Your task to perform on an android device: Show me the alarms in the clock app Image 0: 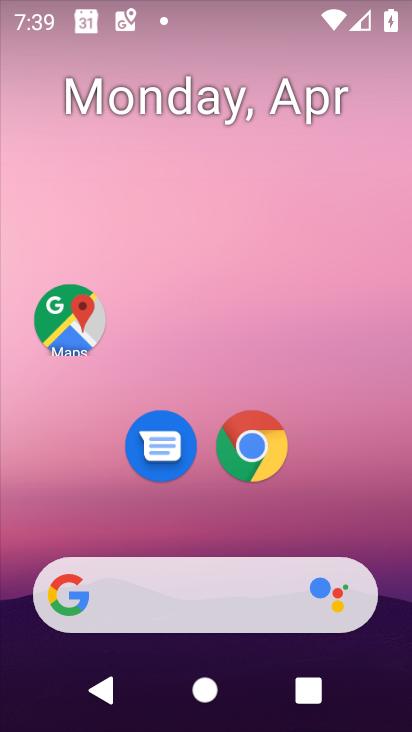
Step 0: drag from (392, 654) to (232, 3)
Your task to perform on an android device: Show me the alarms in the clock app Image 1: 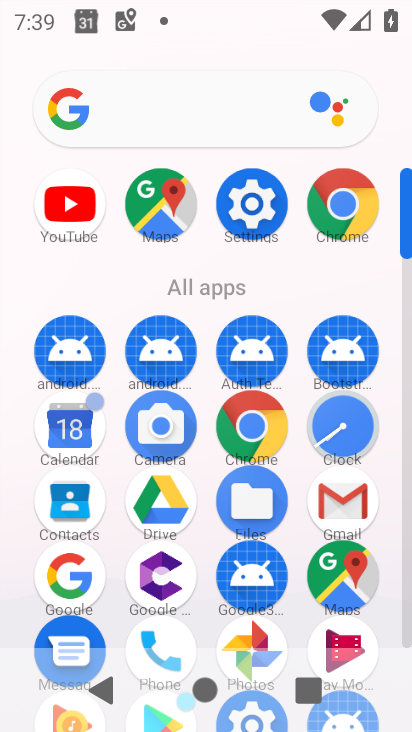
Step 1: drag from (2, 528) to (5, 199)
Your task to perform on an android device: Show me the alarms in the clock app Image 2: 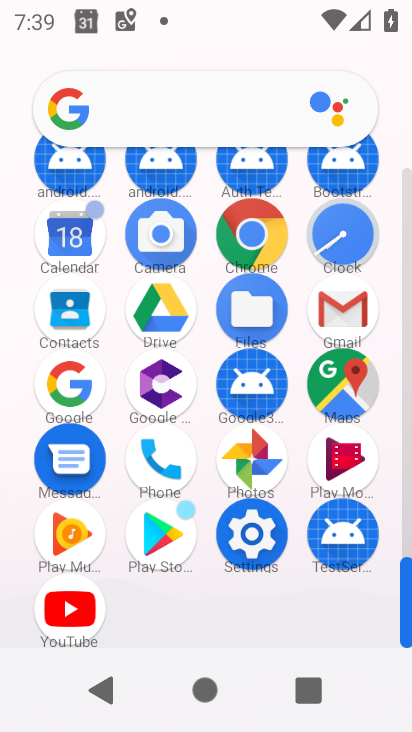
Step 2: drag from (27, 270) to (12, 488)
Your task to perform on an android device: Show me the alarms in the clock app Image 3: 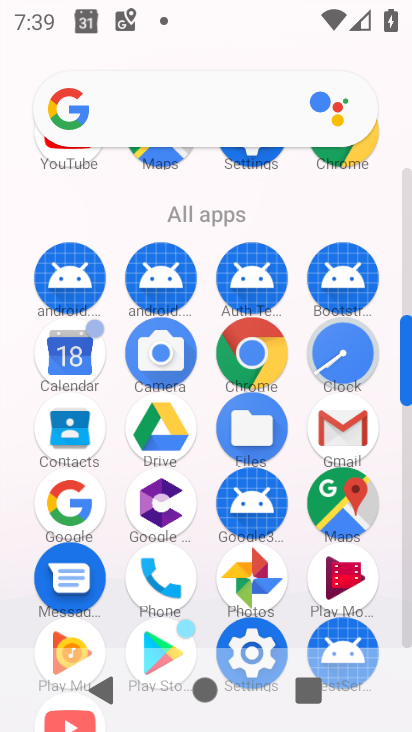
Step 3: drag from (10, 411) to (1, 129)
Your task to perform on an android device: Show me the alarms in the clock app Image 4: 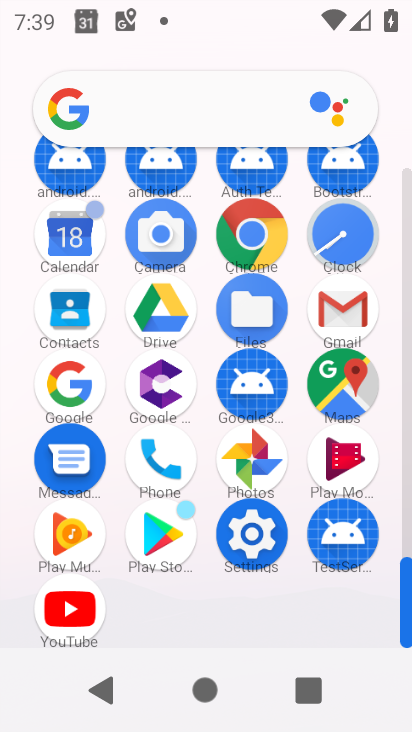
Step 4: click (339, 233)
Your task to perform on an android device: Show me the alarms in the clock app Image 5: 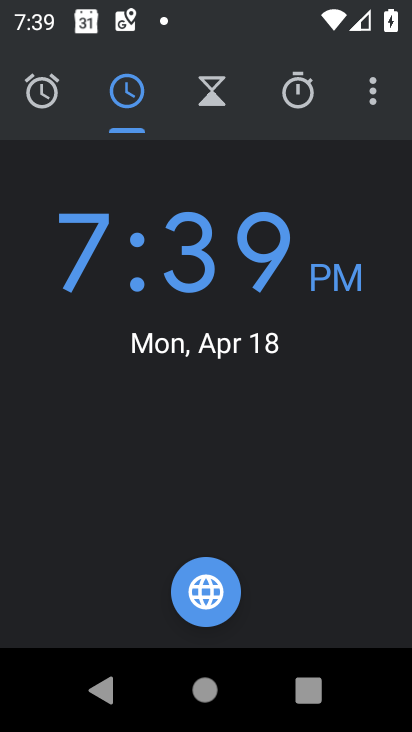
Step 5: click (59, 88)
Your task to perform on an android device: Show me the alarms in the clock app Image 6: 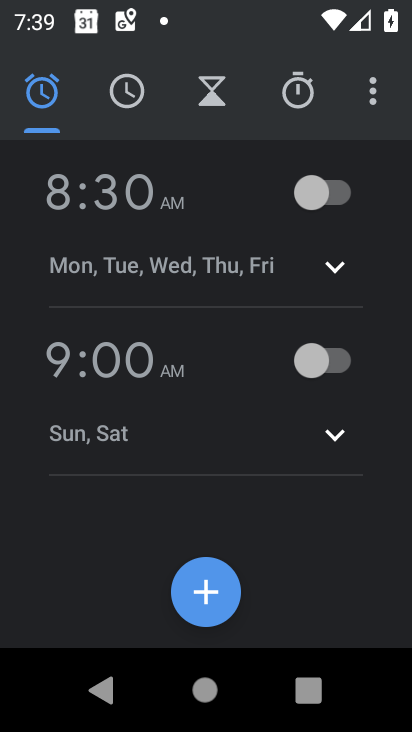
Step 6: task complete